Your task to perform on an android device: change notifications settings Image 0: 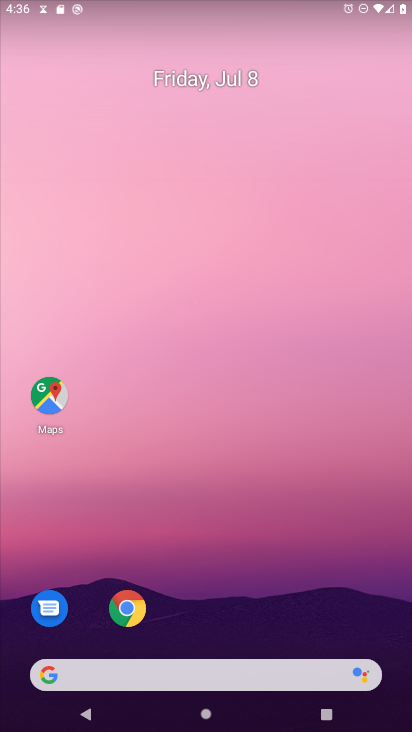
Step 0: drag from (285, 665) to (327, 23)
Your task to perform on an android device: change notifications settings Image 1: 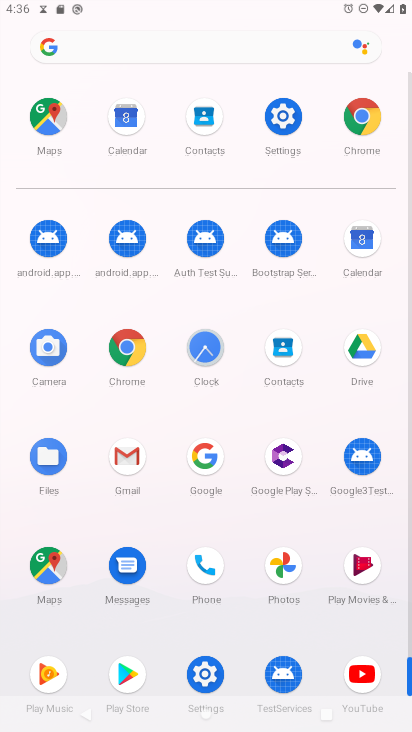
Step 1: click (295, 109)
Your task to perform on an android device: change notifications settings Image 2: 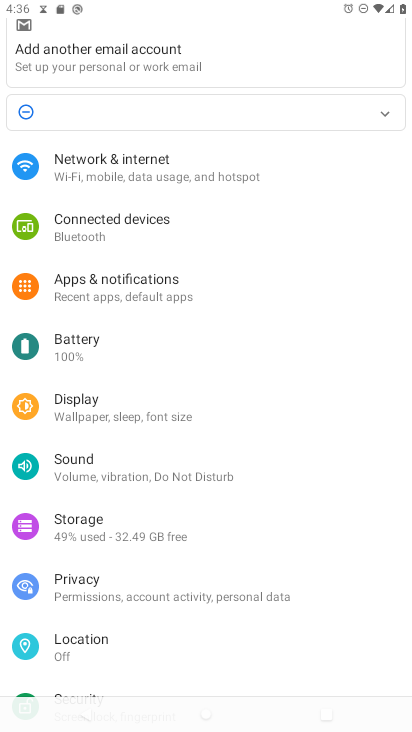
Step 2: click (158, 293)
Your task to perform on an android device: change notifications settings Image 3: 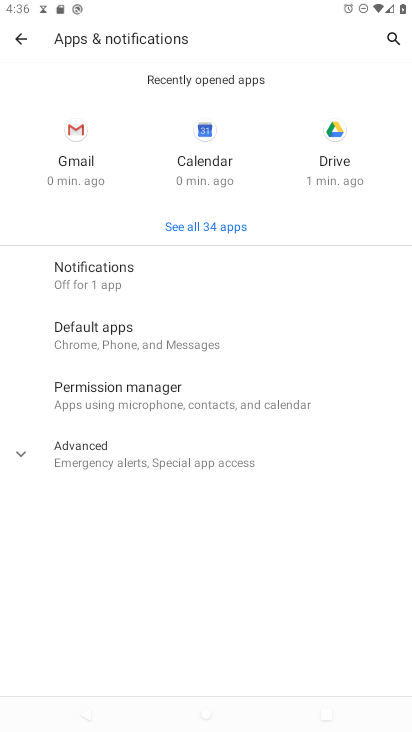
Step 3: click (147, 267)
Your task to perform on an android device: change notifications settings Image 4: 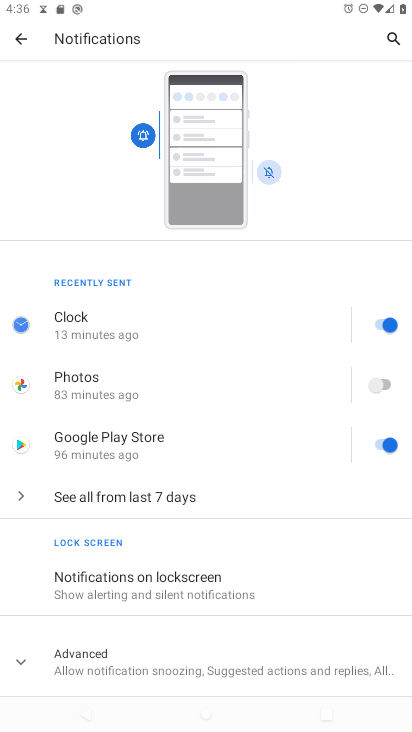
Step 4: click (378, 318)
Your task to perform on an android device: change notifications settings Image 5: 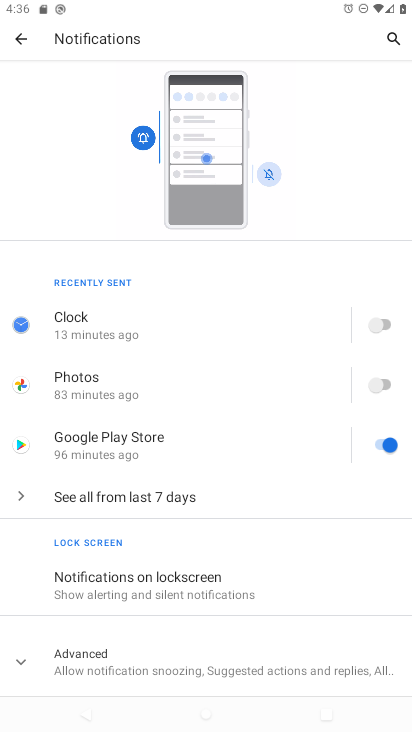
Step 5: task complete